Your task to perform on an android device: What's the weather like in Hong Kong? Image 0: 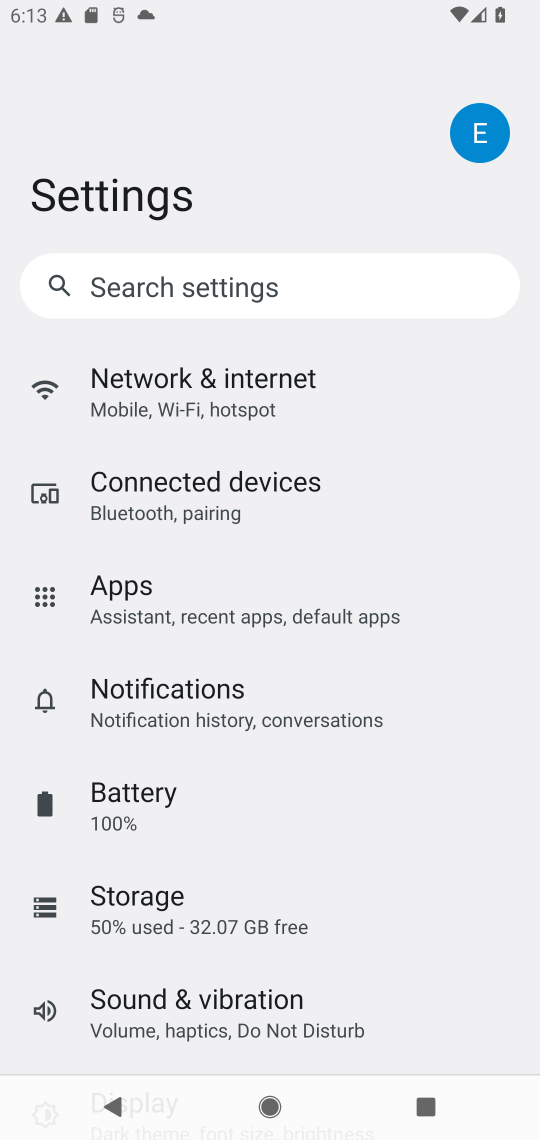
Step 0: press home button
Your task to perform on an android device: What's the weather like in Hong Kong? Image 1: 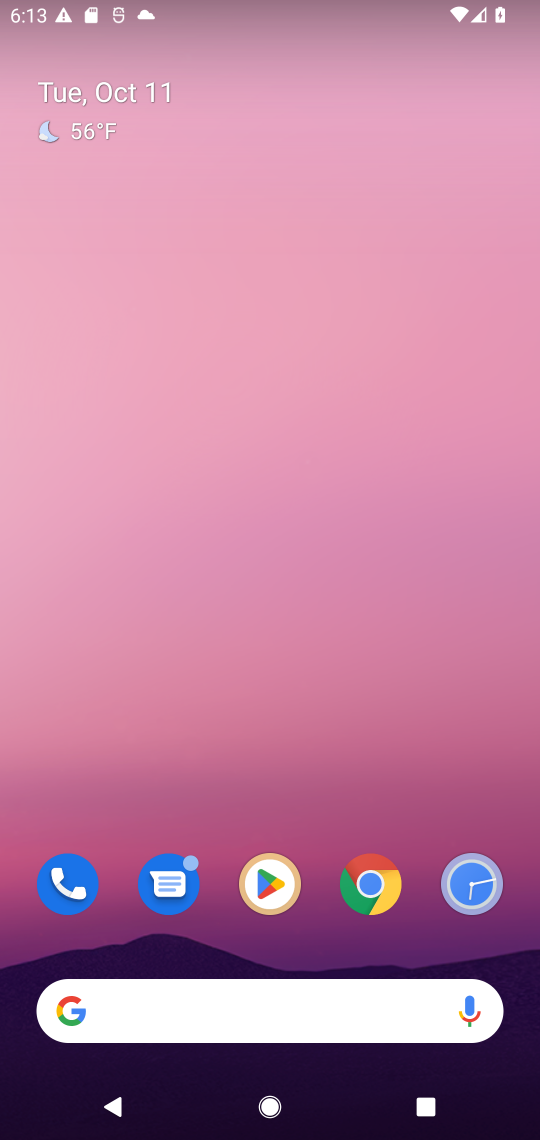
Step 1: drag from (315, 869) to (270, 1)
Your task to perform on an android device: What's the weather like in Hong Kong? Image 2: 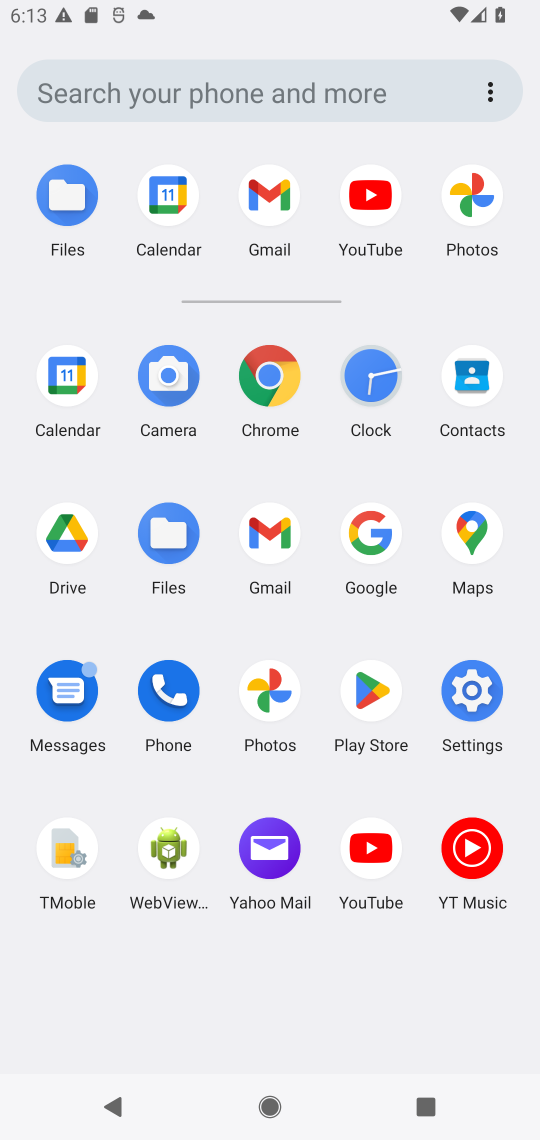
Step 2: click (378, 526)
Your task to perform on an android device: What's the weather like in Hong Kong? Image 3: 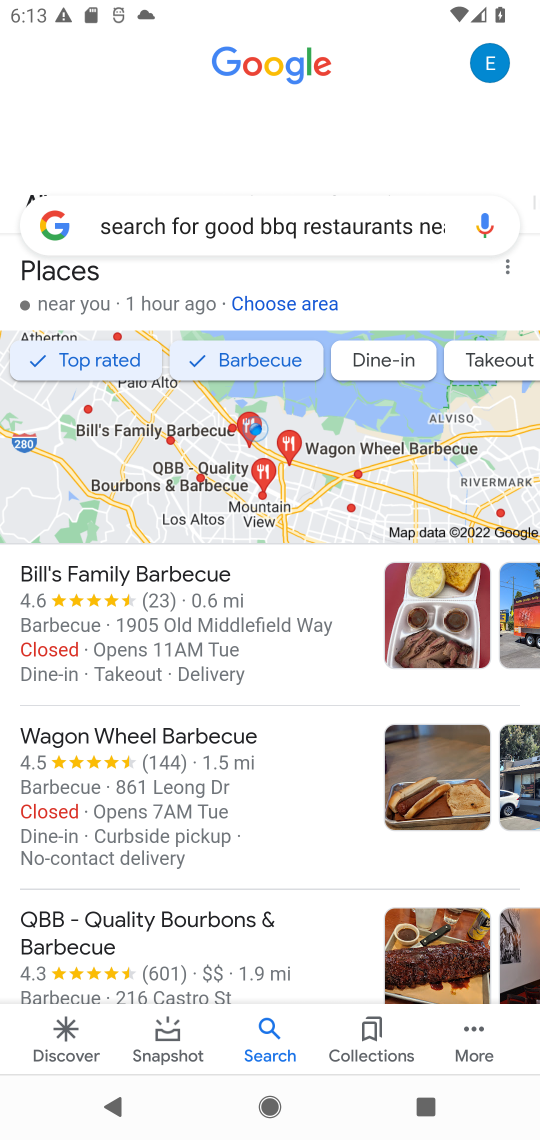
Step 3: click (330, 228)
Your task to perform on an android device: What's the weather like in Hong Kong? Image 4: 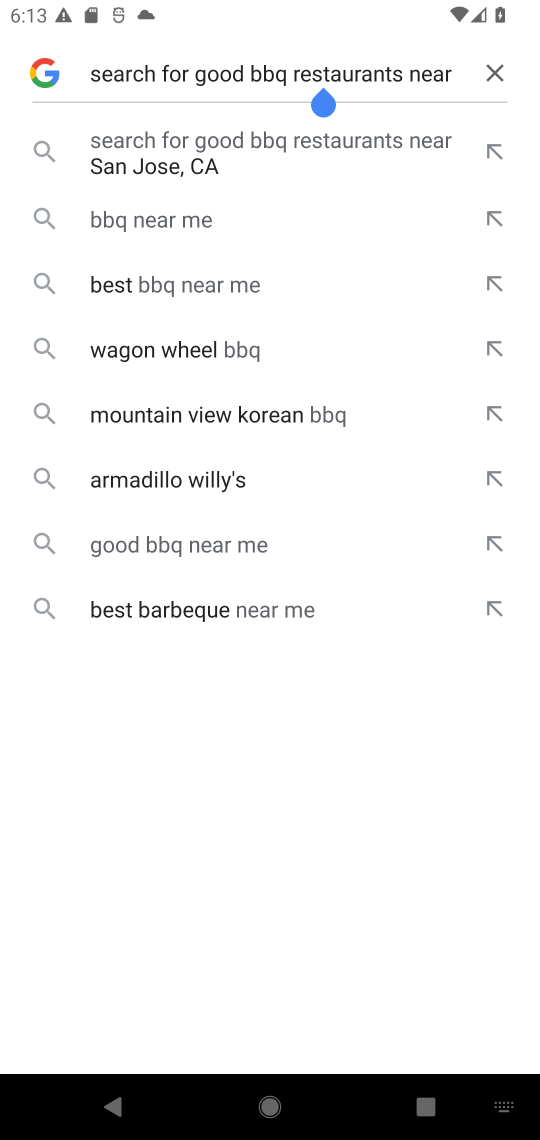
Step 4: click (489, 72)
Your task to perform on an android device: What's the weather like in Hong Kong? Image 5: 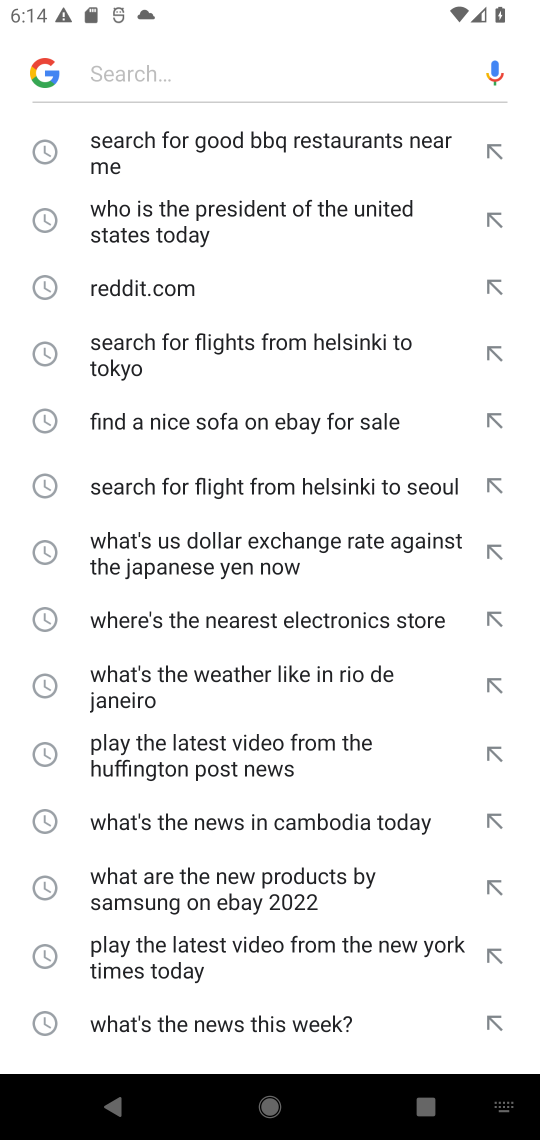
Step 5: type "What's the weather like in Hong Kong?"
Your task to perform on an android device: What's the weather like in Hong Kong? Image 6: 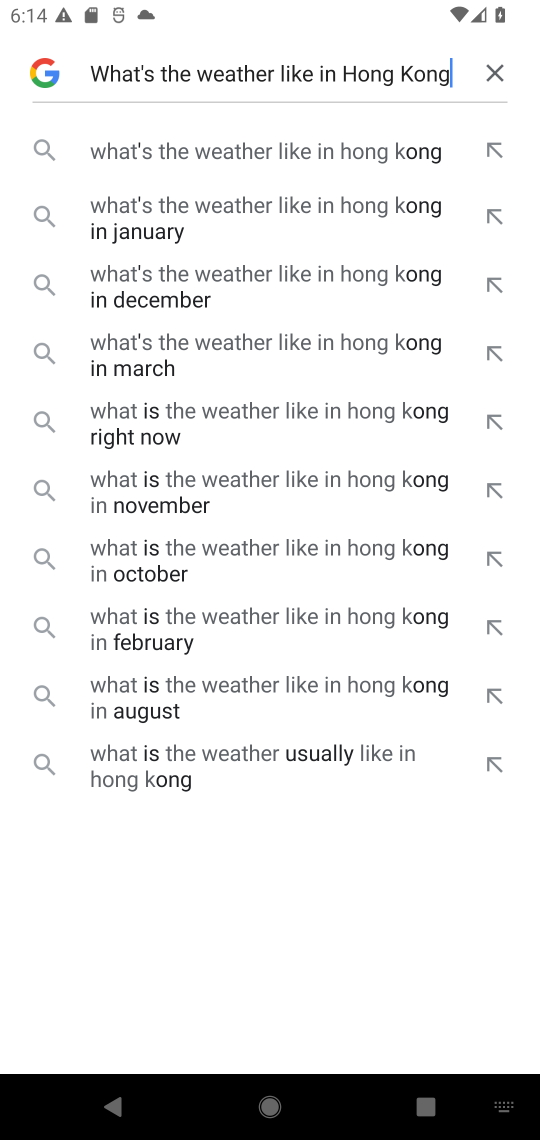
Step 6: type ""
Your task to perform on an android device: What's the weather like in Hong Kong? Image 7: 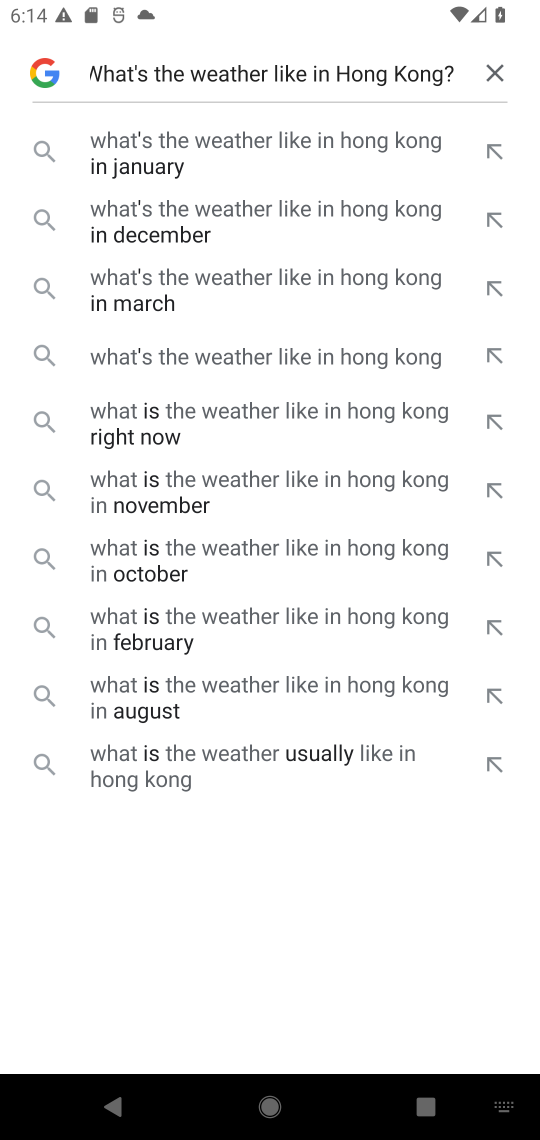
Step 7: click (254, 402)
Your task to perform on an android device: What's the weather like in Hong Kong? Image 8: 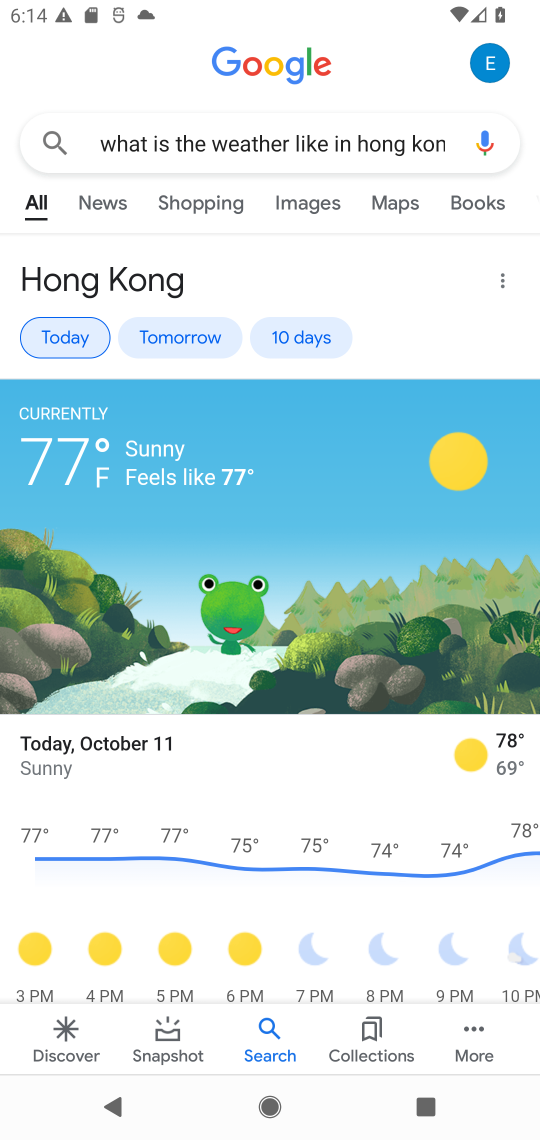
Step 8: task complete